Your task to perform on an android device: Open notification settings Image 0: 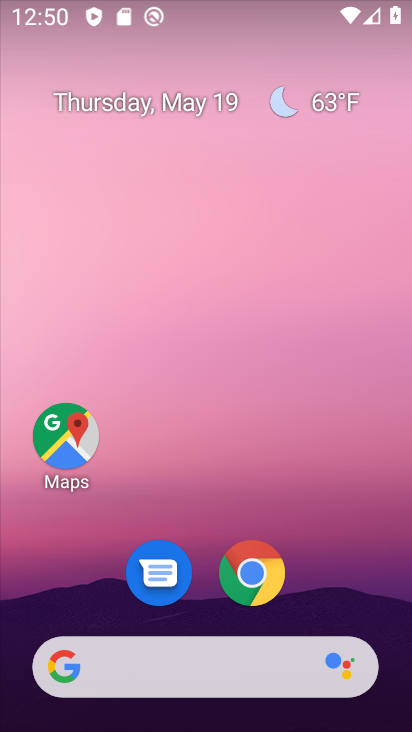
Step 0: drag from (298, 581) to (279, 266)
Your task to perform on an android device: Open notification settings Image 1: 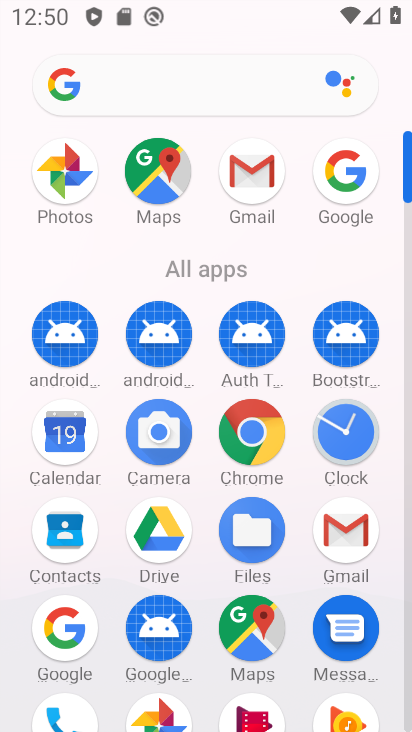
Step 1: drag from (212, 539) to (241, 191)
Your task to perform on an android device: Open notification settings Image 2: 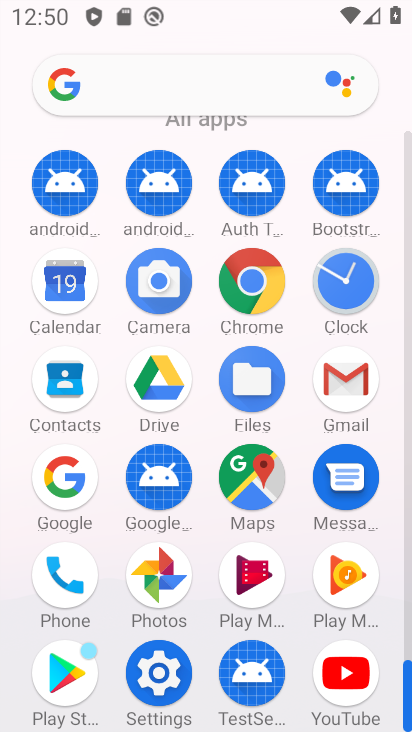
Step 2: click (154, 653)
Your task to perform on an android device: Open notification settings Image 3: 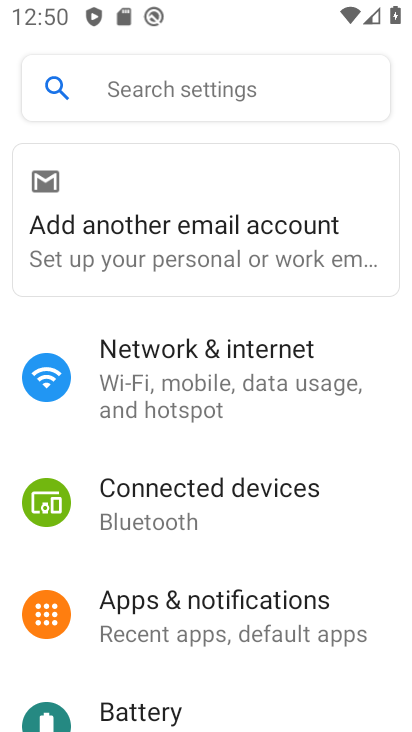
Step 3: click (203, 606)
Your task to perform on an android device: Open notification settings Image 4: 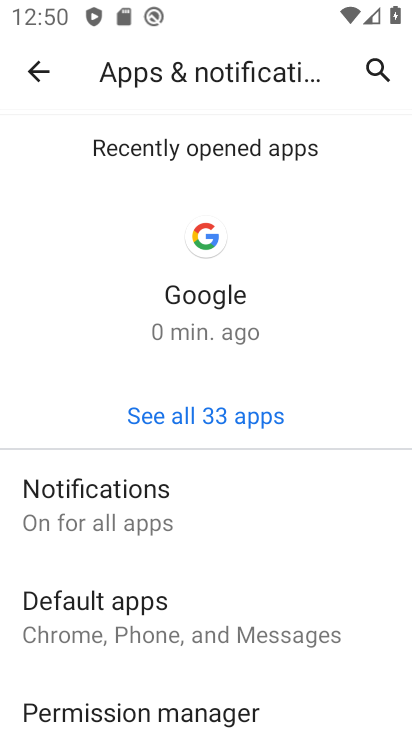
Step 4: click (127, 494)
Your task to perform on an android device: Open notification settings Image 5: 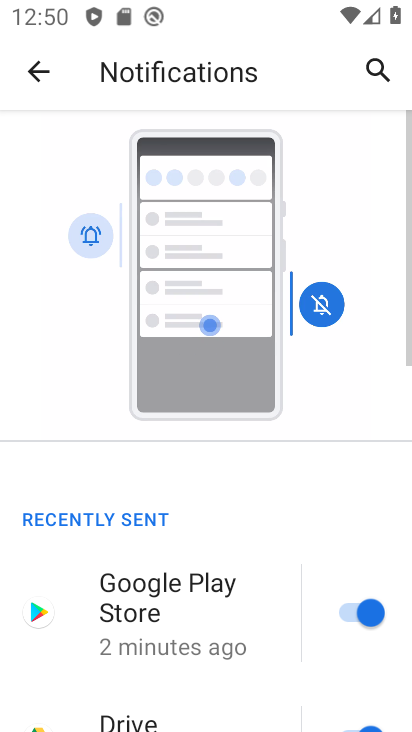
Step 5: task complete